Your task to perform on an android device: Open wifi settings Image 0: 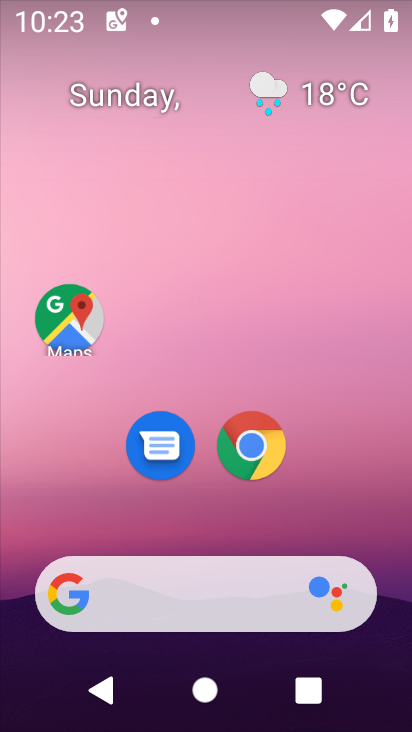
Step 0: drag from (200, 519) to (203, 39)
Your task to perform on an android device: Open wifi settings Image 1: 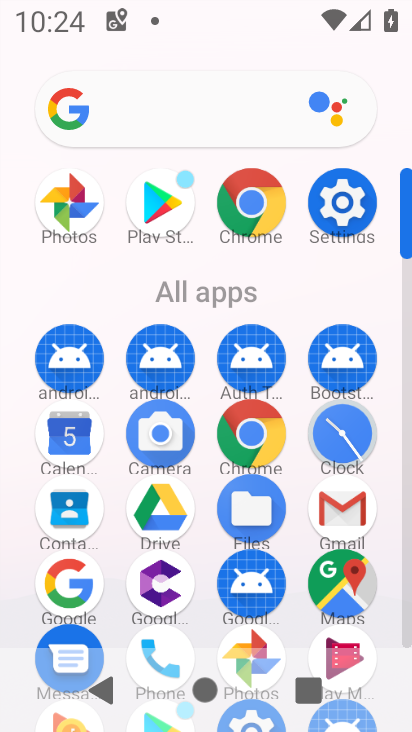
Step 1: drag from (235, 270) to (246, 550)
Your task to perform on an android device: Open wifi settings Image 2: 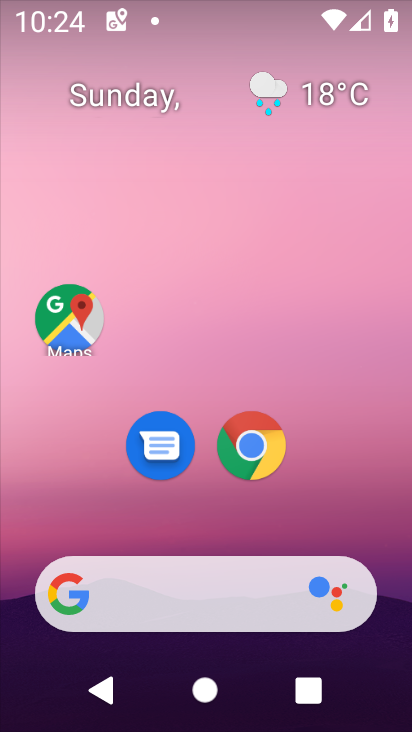
Step 2: drag from (215, 528) to (229, 1)
Your task to perform on an android device: Open wifi settings Image 3: 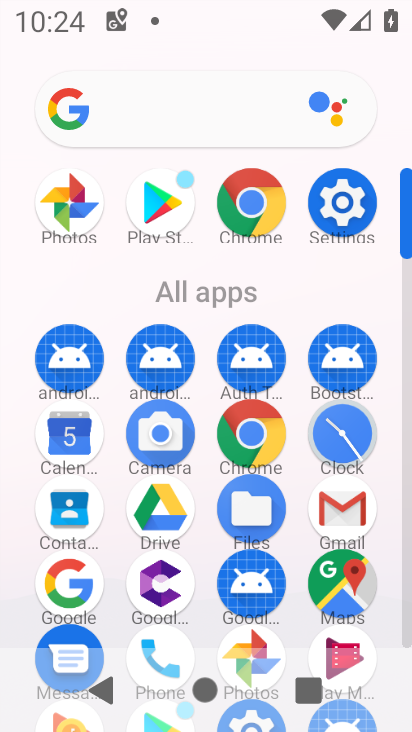
Step 3: click (340, 194)
Your task to perform on an android device: Open wifi settings Image 4: 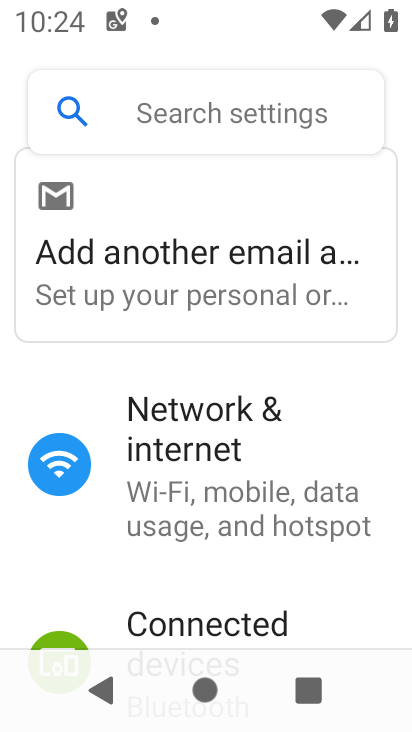
Step 4: click (273, 450)
Your task to perform on an android device: Open wifi settings Image 5: 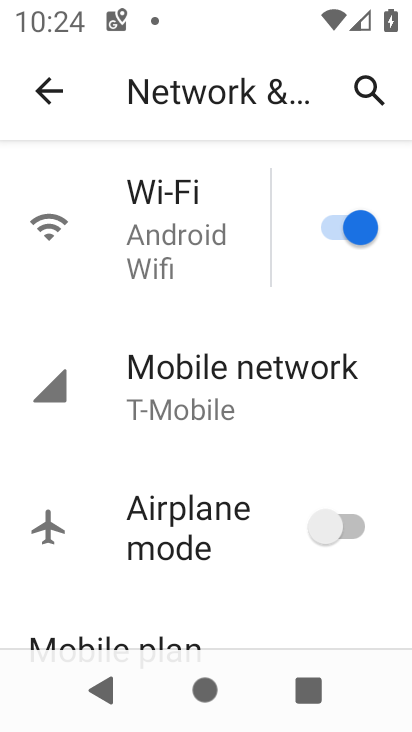
Step 5: click (236, 231)
Your task to perform on an android device: Open wifi settings Image 6: 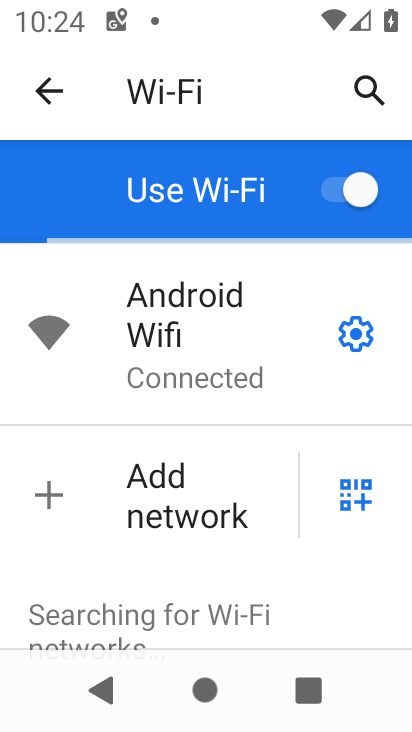
Step 6: task complete